Your task to perform on an android device: turn on the 12-hour format for clock Image 0: 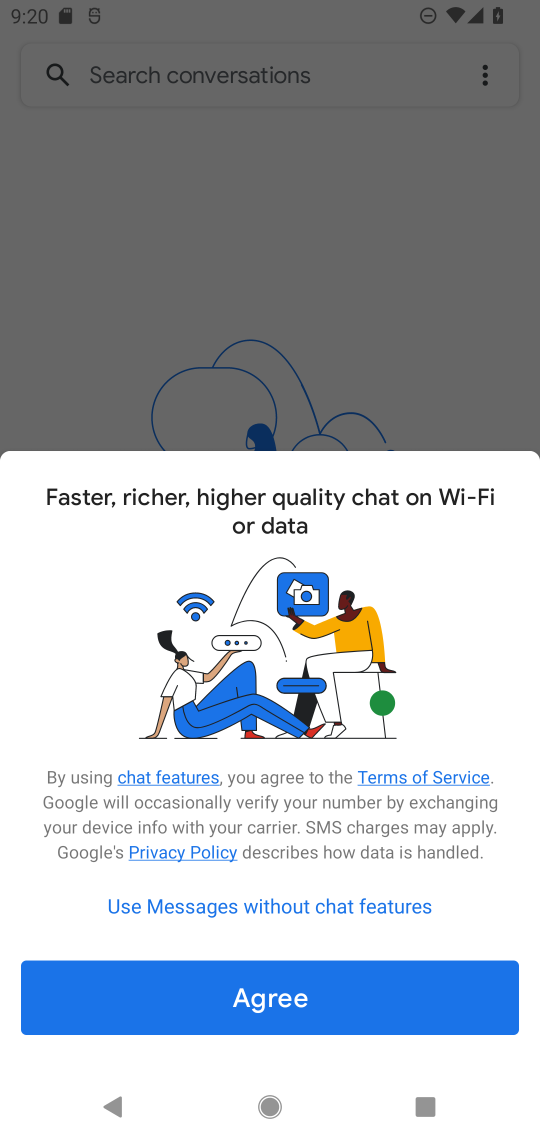
Step 0: press home button
Your task to perform on an android device: turn on the 12-hour format for clock Image 1: 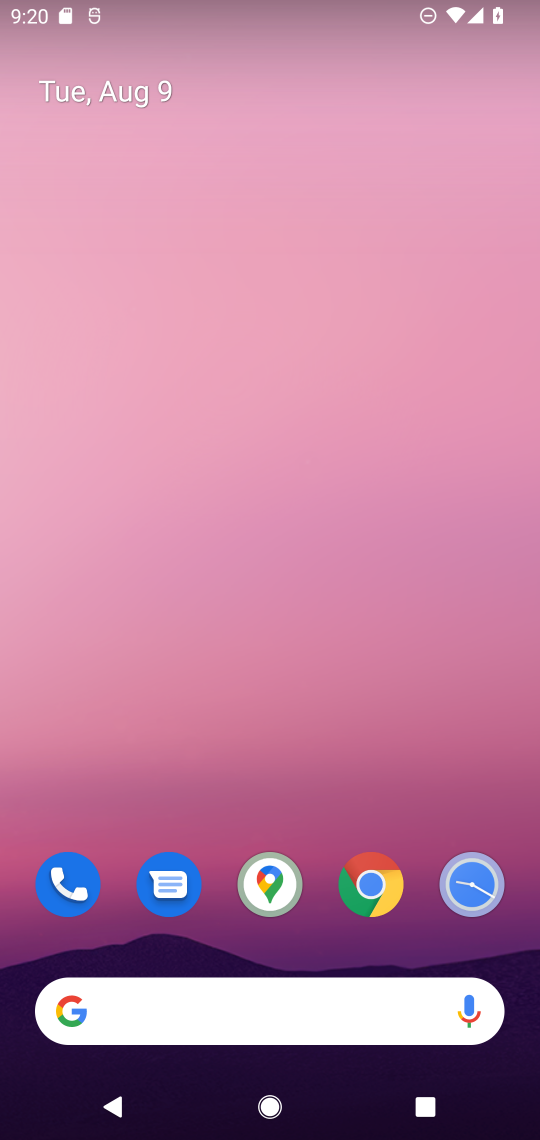
Step 1: drag from (166, 986) to (412, 0)
Your task to perform on an android device: turn on the 12-hour format for clock Image 2: 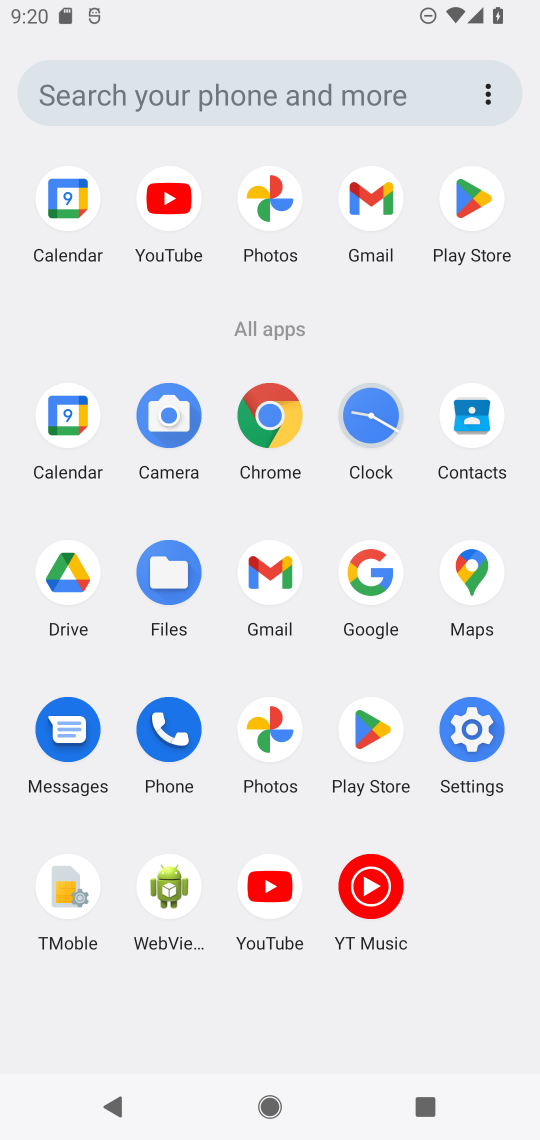
Step 2: click (374, 429)
Your task to perform on an android device: turn on the 12-hour format for clock Image 3: 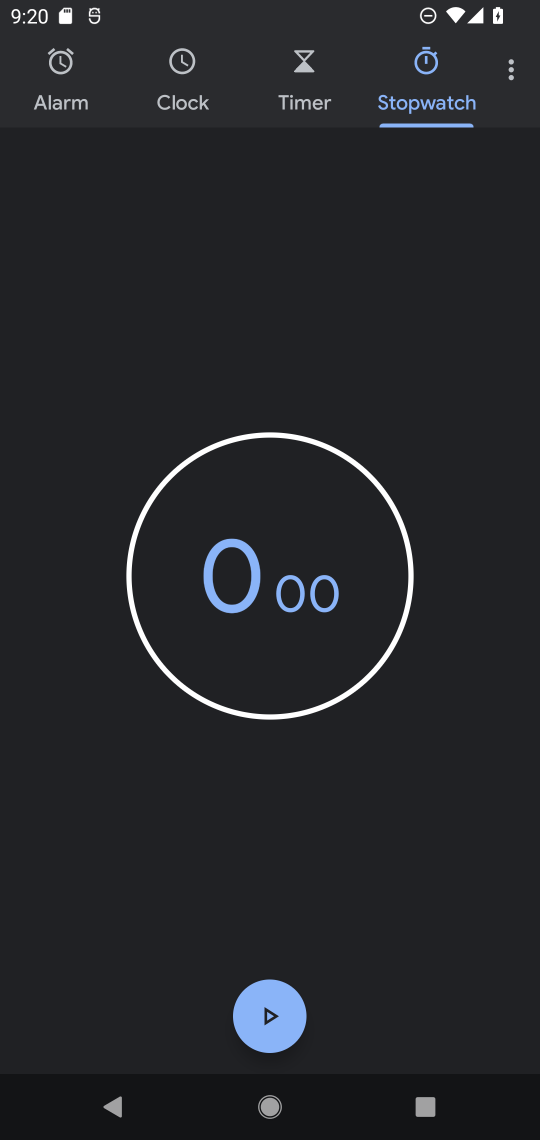
Step 3: click (521, 62)
Your task to perform on an android device: turn on the 12-hour format for clock Image 4: 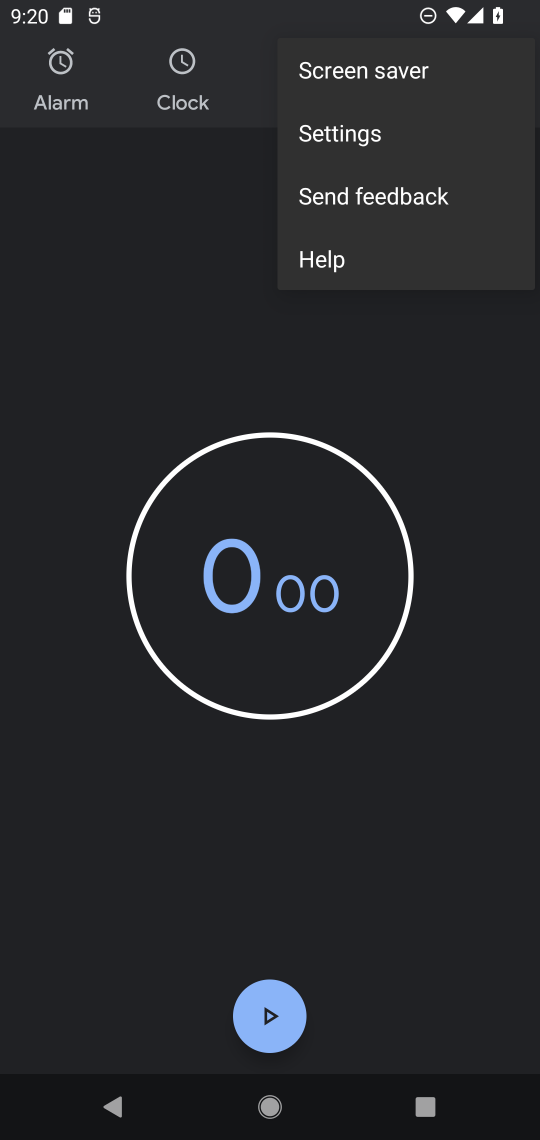
Step 4: click (313, 141)
Your task to perform on an android device: turn on the 12-hour format for clock Image 5: 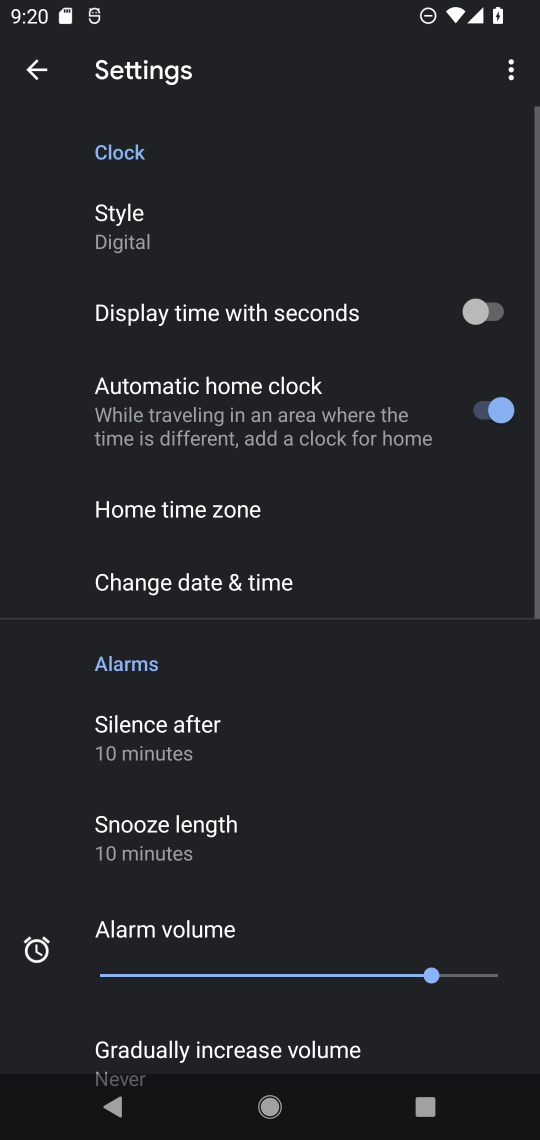
Step 5: click (229, 585)
Your task to perform on an android device: turn on the 12-hour format for clock Image 6: 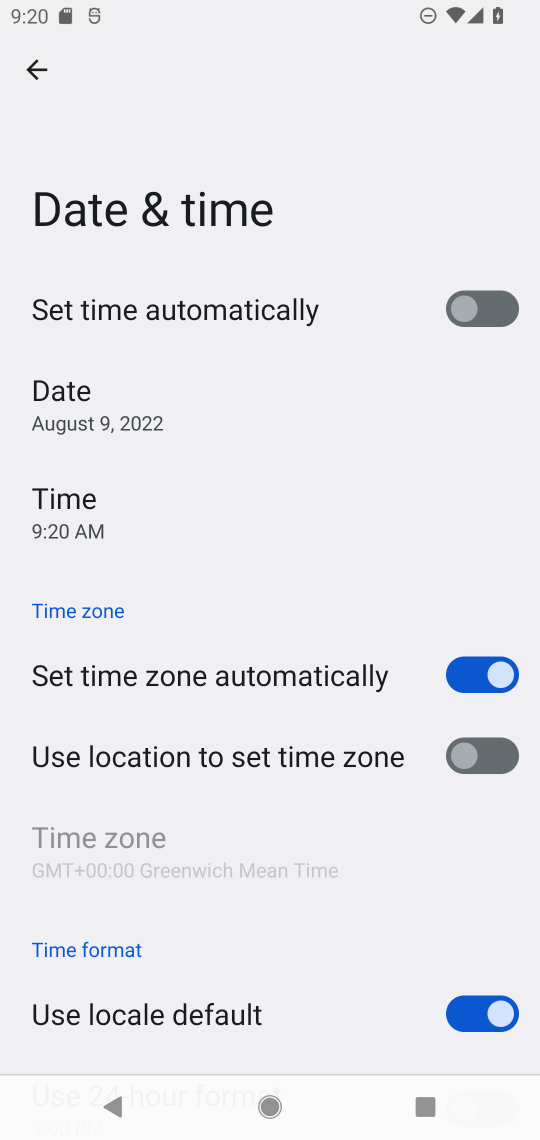
Step 6: drag from (173, 866) to (354, 30)
Your task to perform on an android device: turn on the 12-hour format for clock Image 7: 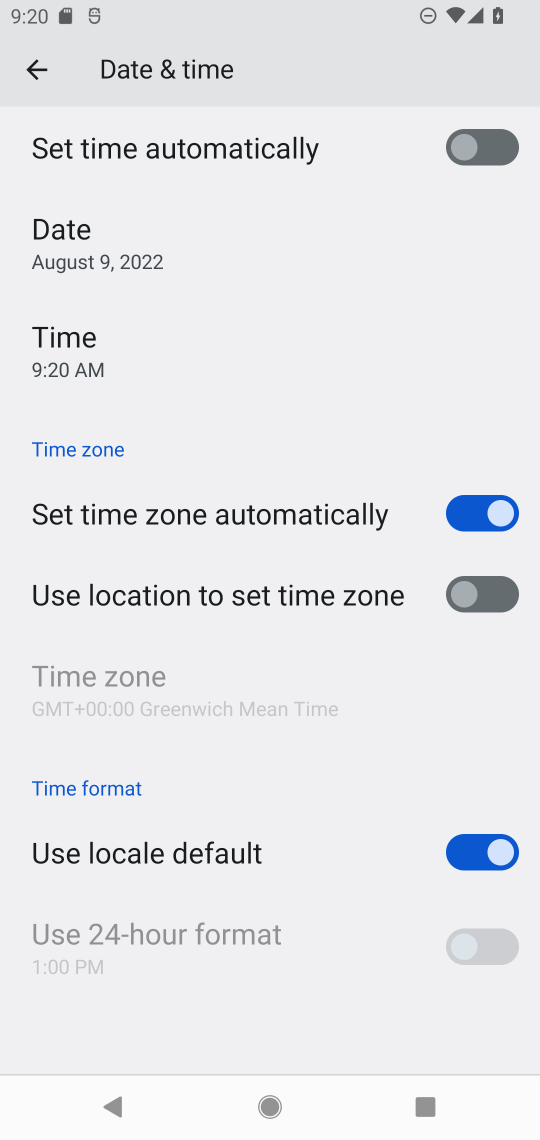
Step 7: click (492, 844)
Your task to perform on an android device: turn on the 12-hour format for clock Image 8: 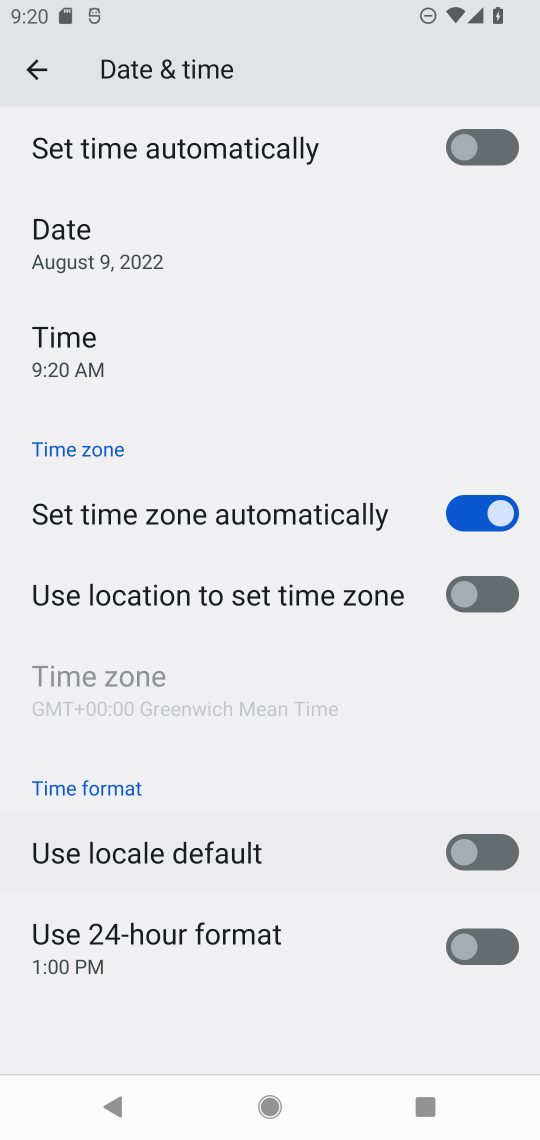
Step 8: click (463, 943)
Your task to perform on an android device: turn on the 12-hour format for clock Image 9: 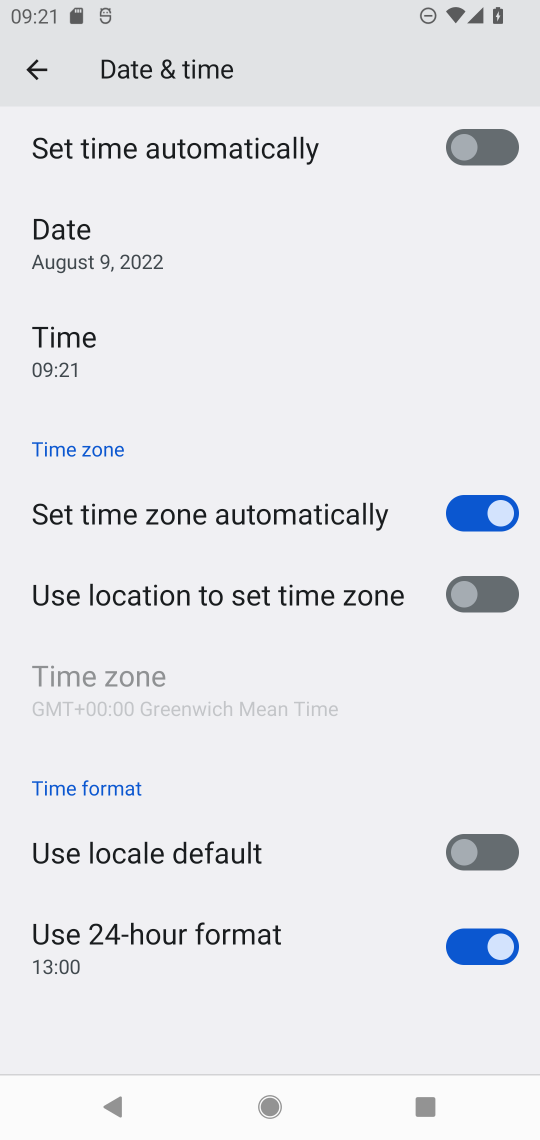
Step 9: task complete